Your task to perform on an android device: turn off translation in the chrome app Image 0: 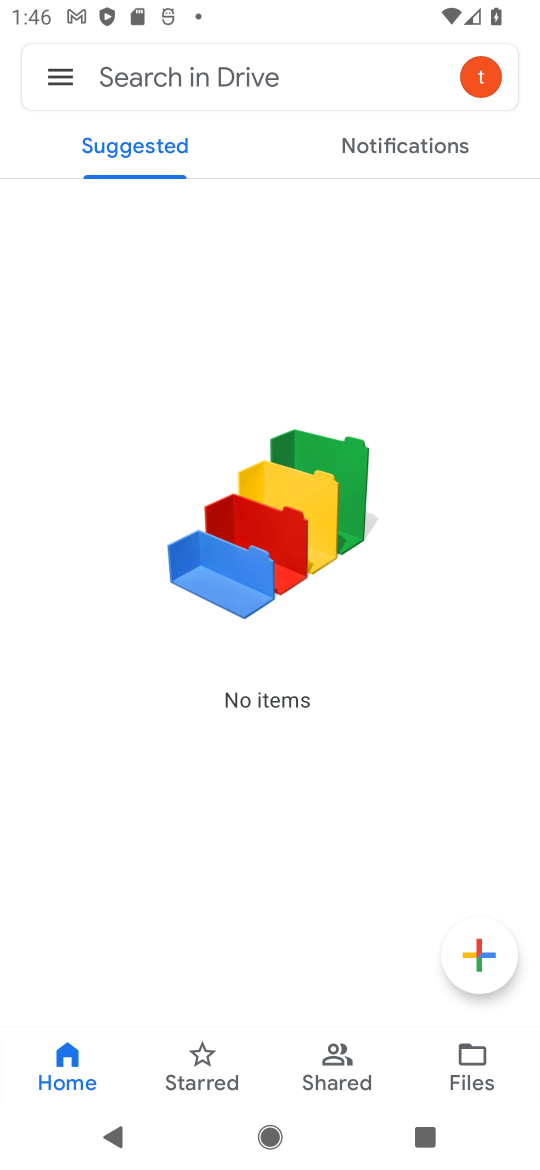
Step 0: press home button
Your task to perform on an android device: turn off translation in the chrome app Image 1: 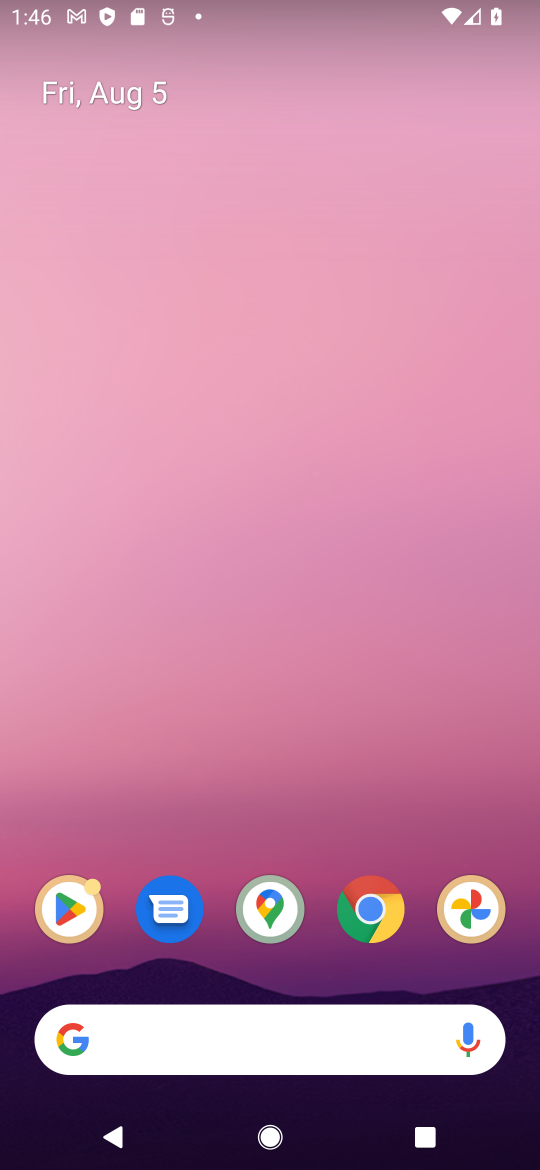
Step 1: click (393, 906)
Your task to perform on an android device: turn off translation in the chrome app Image 2: 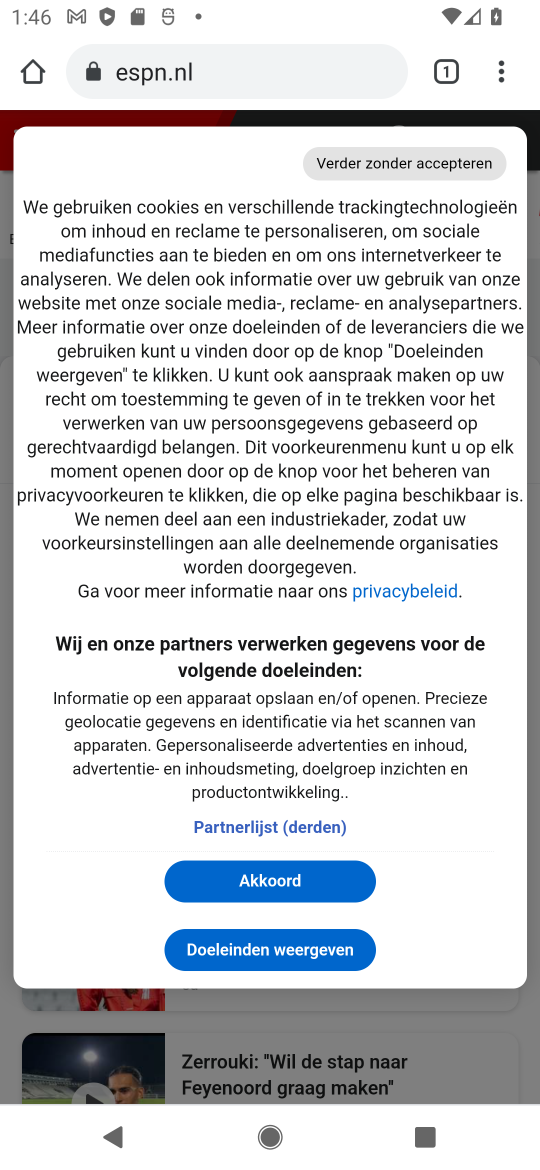
Step 2: click (509, 80)
Your task to perform on an android device: turn off translation in the chrome app Image 3: 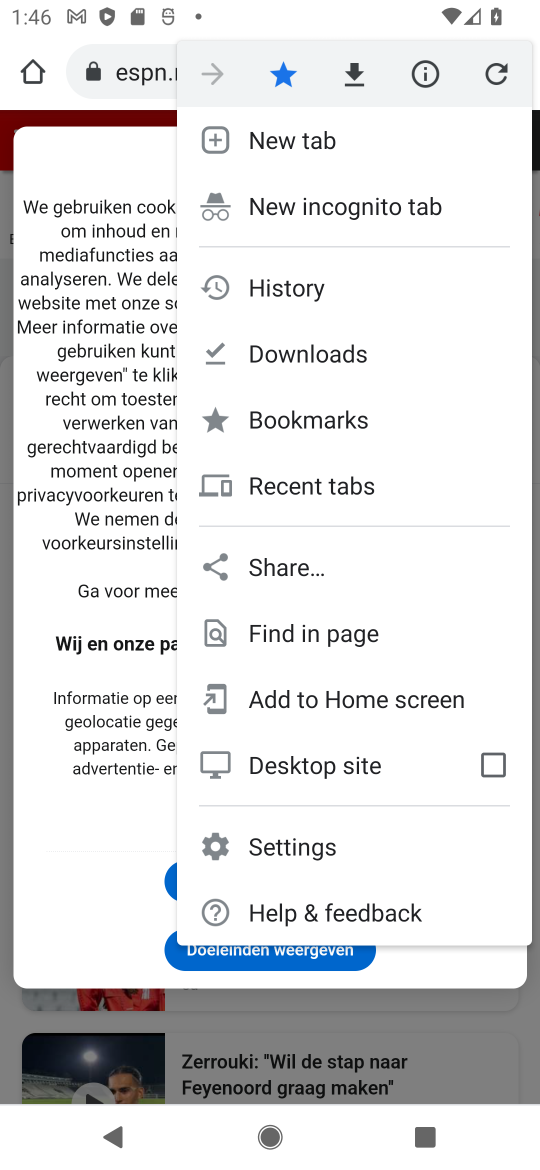
Step 3: click (307, 853)
Your task to perform on an android device: turn off translation in the chrome app Image 4: 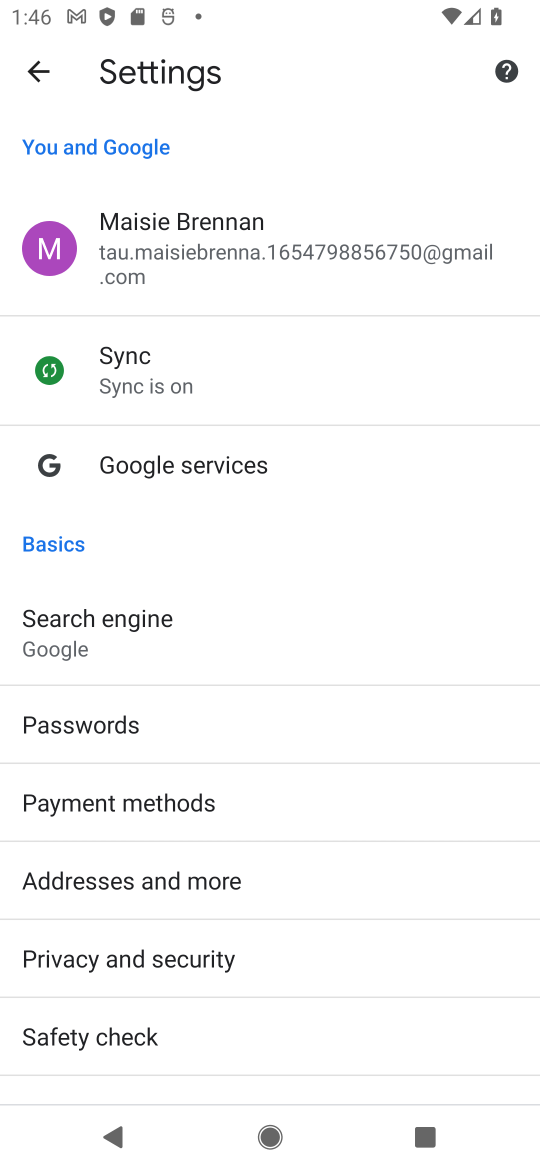
Step 4: drag from (259, 917) to (208, 399)
Your task to perform on an android device: turn off translation in the chrome app Image 5: 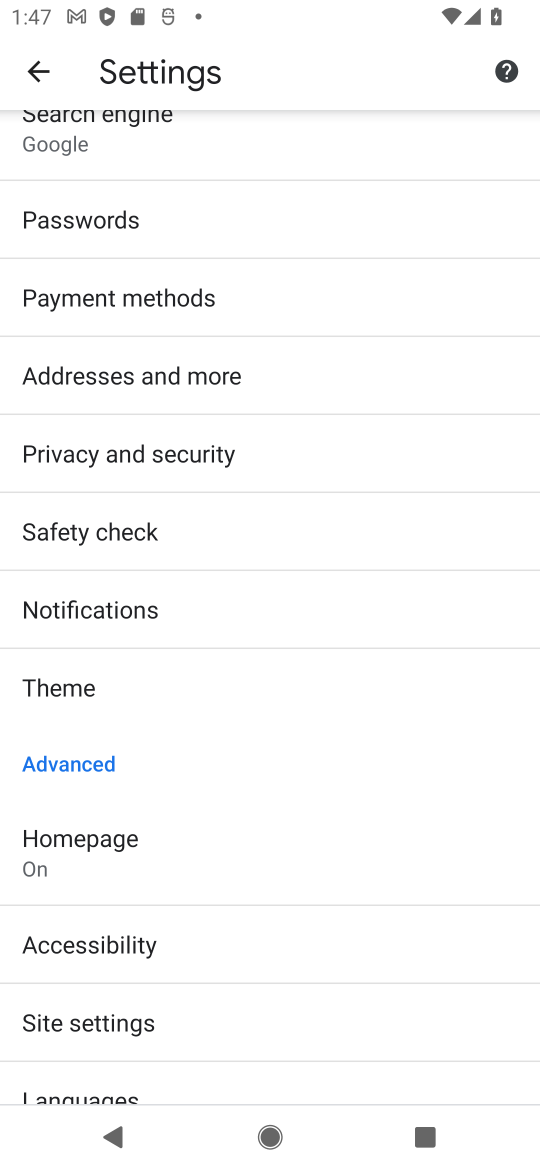
Step 5: click (246, 1006)
Your task to perform on an android device: turn off translation in the chrome app Image 6: 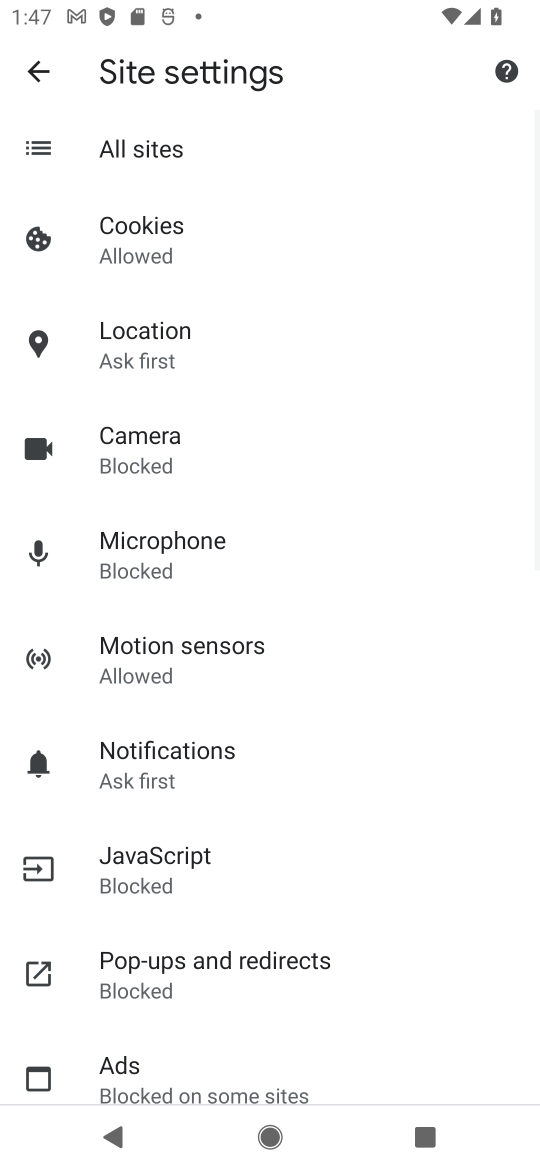
Step 6: task complete